Your task to perform on an android device: open app "Viber Messenger" (install if not already installed) Image 0: 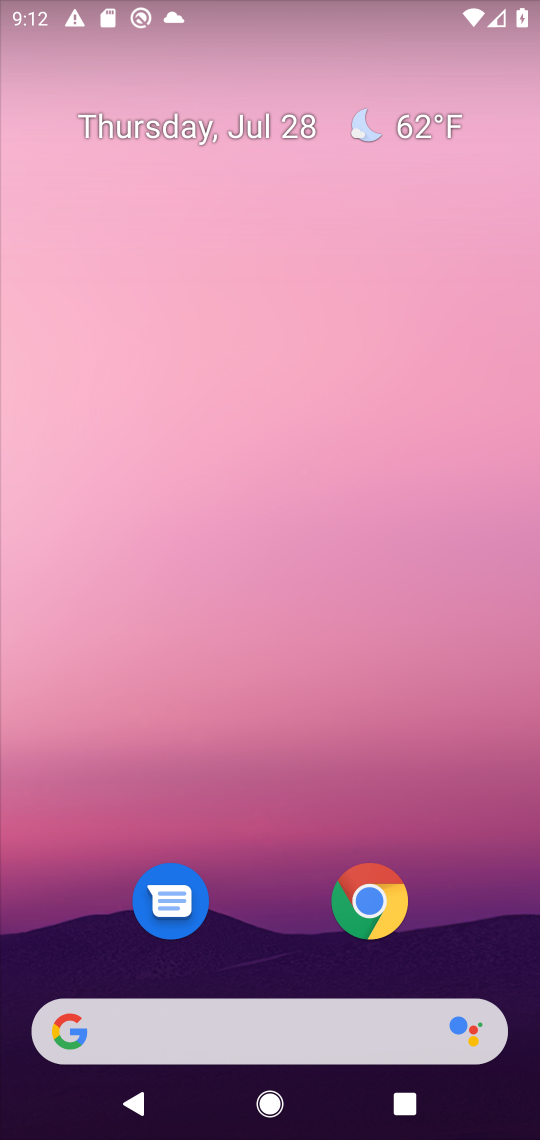
Step 0: drag from (499, 743) to (100, 754)
Your task to perform on an android device: open app "Viber Messenger" (install if not already installed) Image 1: 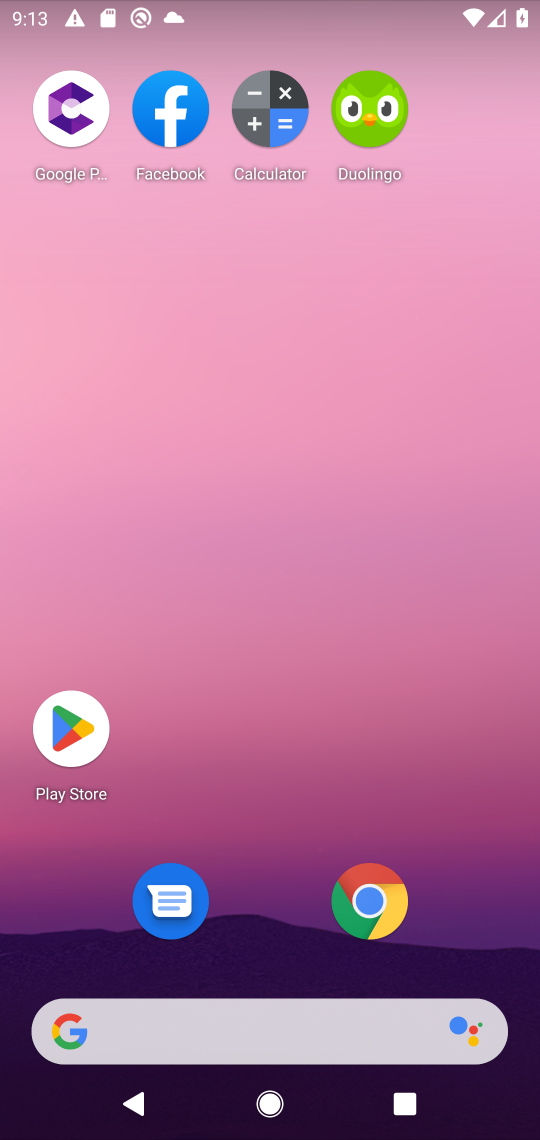
Step 1: click (74, 735)
Your task to perform on an android device: open app "Viber Messenger" (install if not already installed) Image 2: 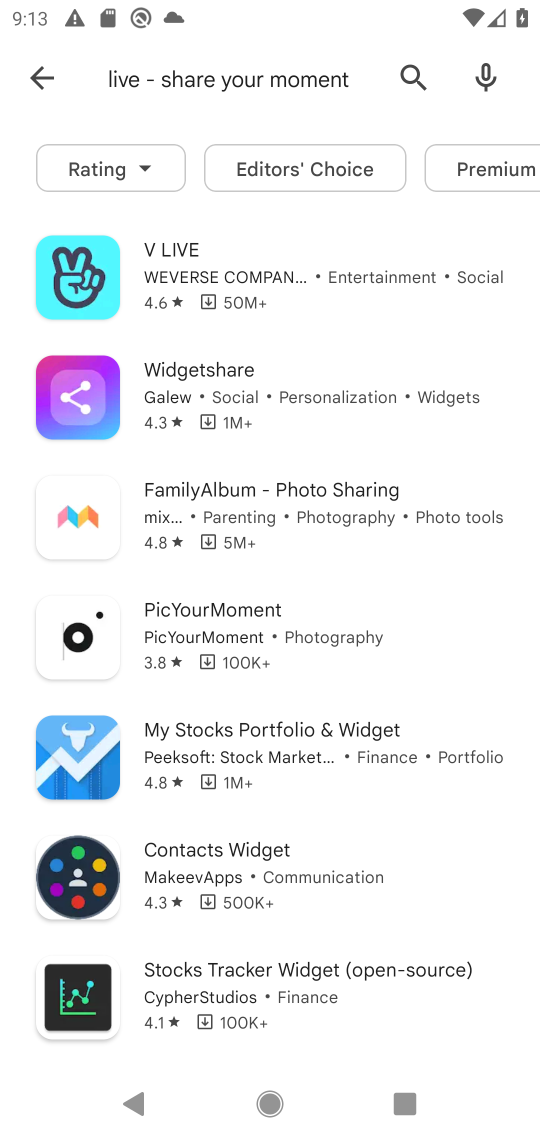
Step 2: click (410, 74)
Your task to perform on an android device: open app "Viber Messenger" (install if not already installed) Image 3: 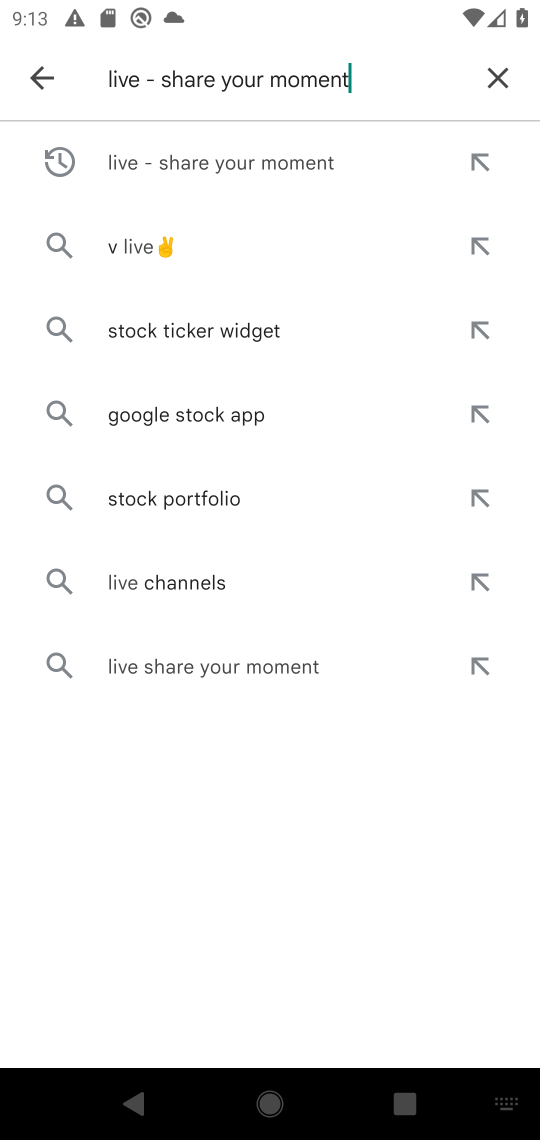
Step 3: click (492, 77)
Your task to perform on an android device: open app "Viber Messenger" (install if not already installed) Image 4: 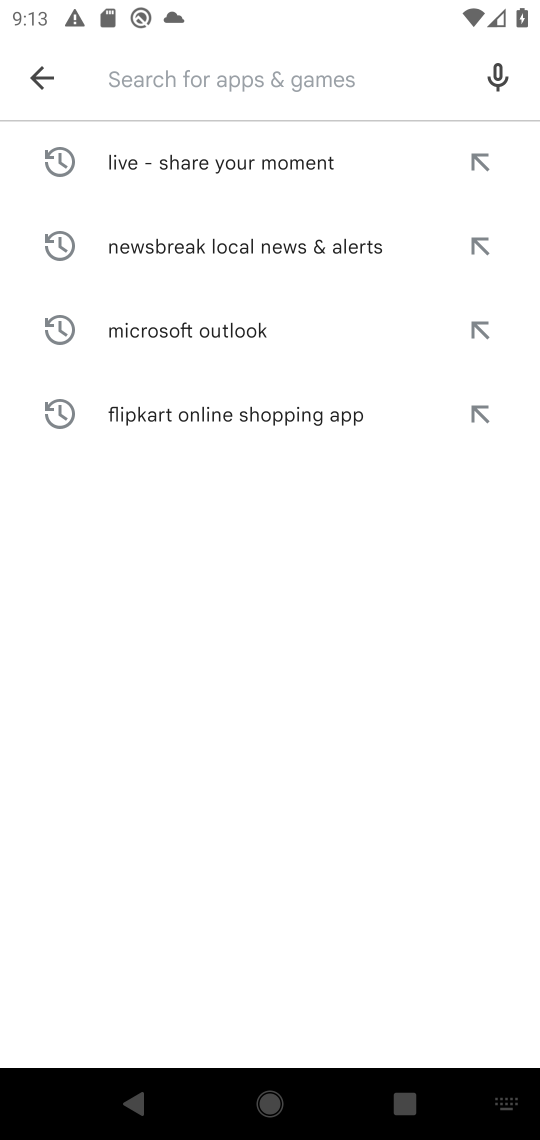
Step 4: type "Viber Messenger"
Your task to perform on an android device: open app "Viber Messenger" (install if not already installed) Image 5: 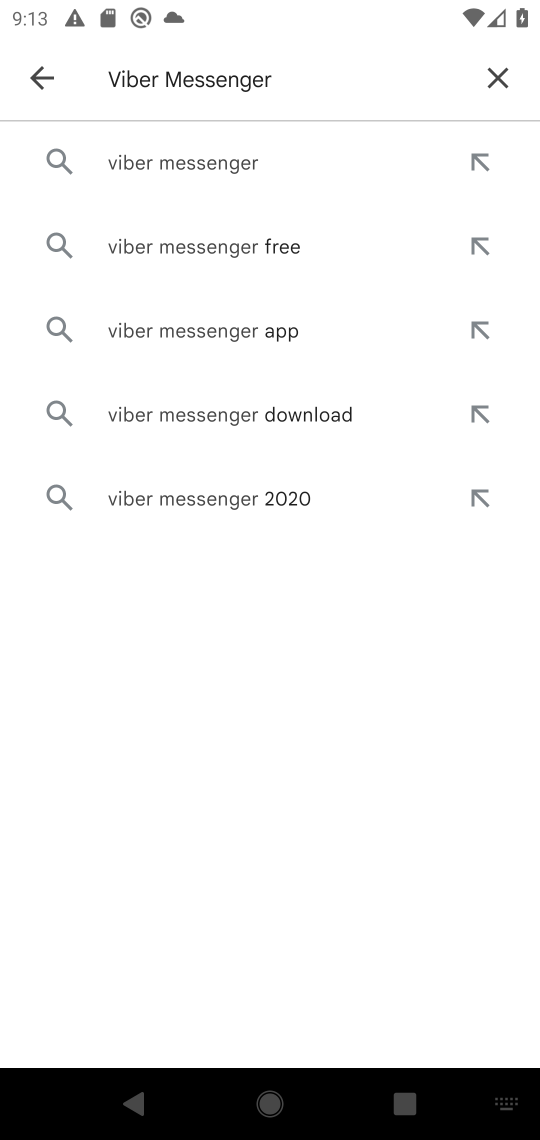
Step 5: click (165, 165)
Your task to perform on an android device: open app "Viber Messenger" (install if not already installed) Image 6: 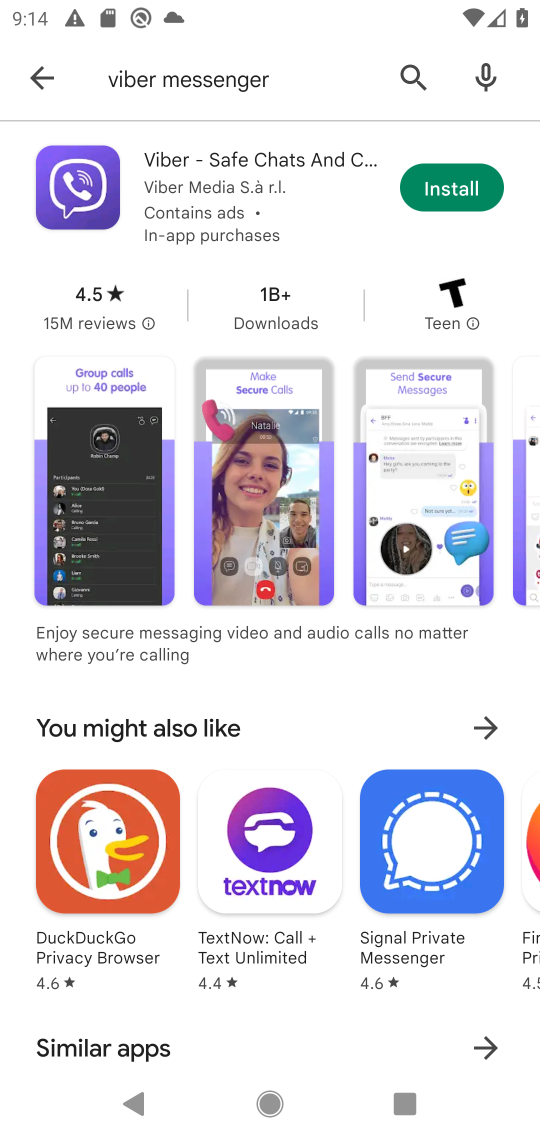
Step 6: task complete